Your task to perform on an android device: Show me the alarms in the clock app Image 0: 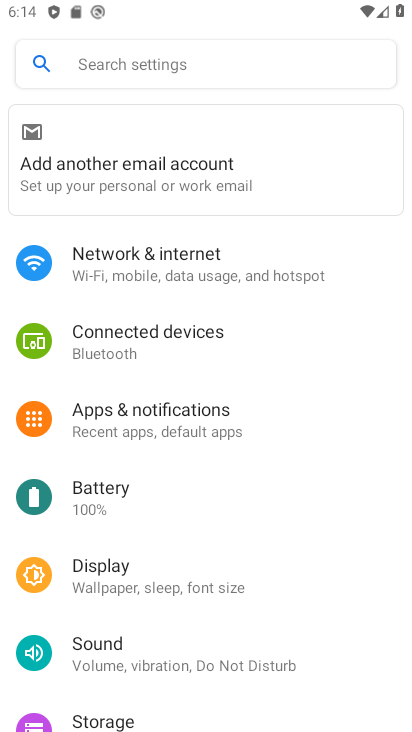
Step 0: press home button
Your task to perform on an android device: Show me the alarms in the clock app Image 1: 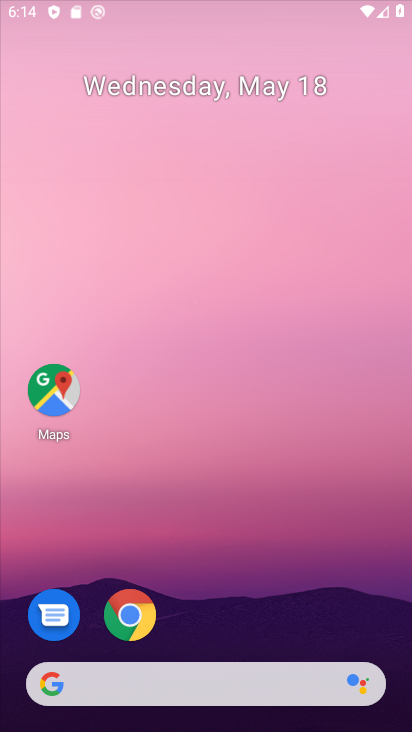
Step 1: drag from (256, 379) to (267, 15)
Your task to perform on an android device: Show me the alarms in the clock app Image 2: 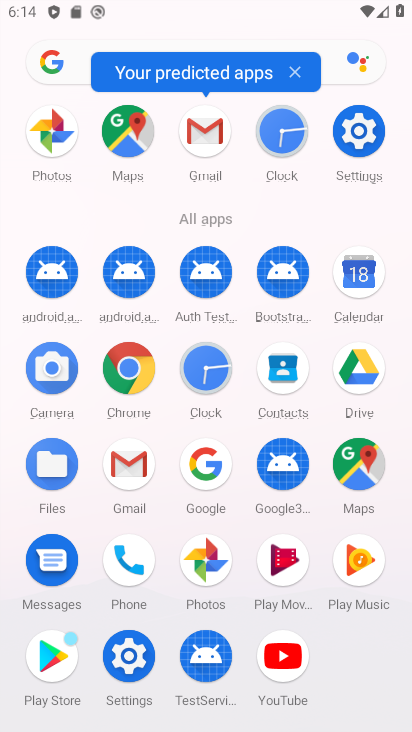
Step 2: click (205, 378)
Your task to perform on an android device: Show me the alarms in the clock app Image 3: 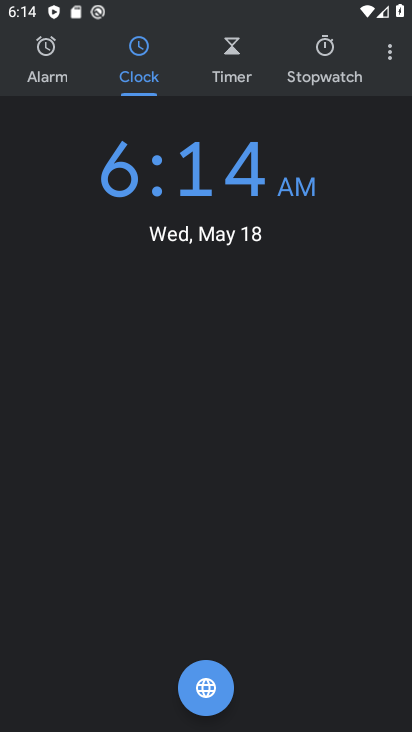
Step 3: click (57, 67)
Your task to perform on an android device: Show me the alarms in the clock app Image 4: 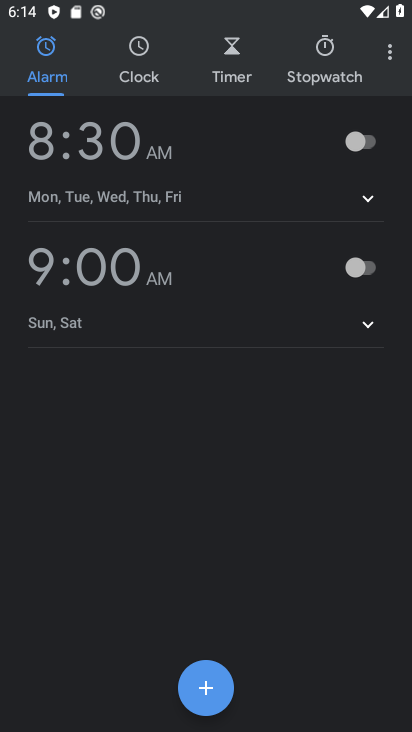
Step 4: task complete